Your task to perform on an android device: turn on improve location accuracy Image 0: 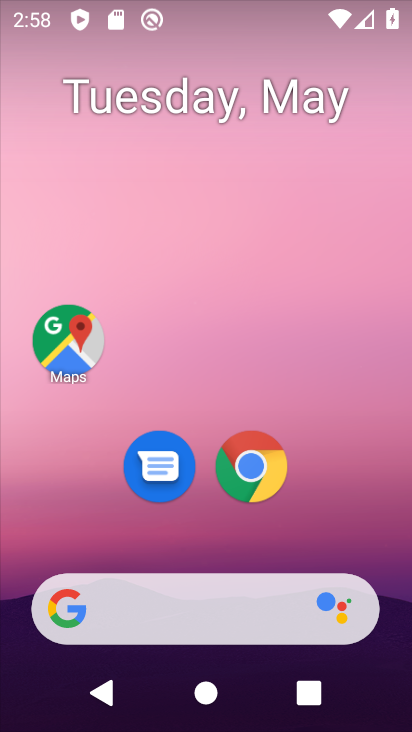
Step 0: drag from (301, 479) to (276, 167)
Your task to perform on an android device: turn on improve location accuracy Image 1: 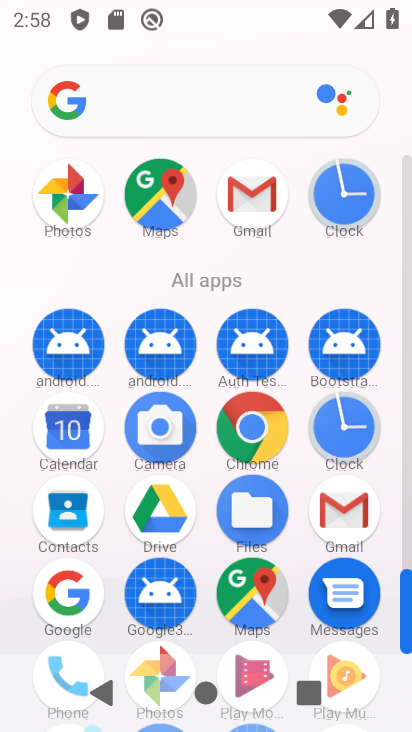
Step 1: drag from (202, 604) to (200, 319)
Your task to perform on an android device: turn on improve location accuracy Image 2: 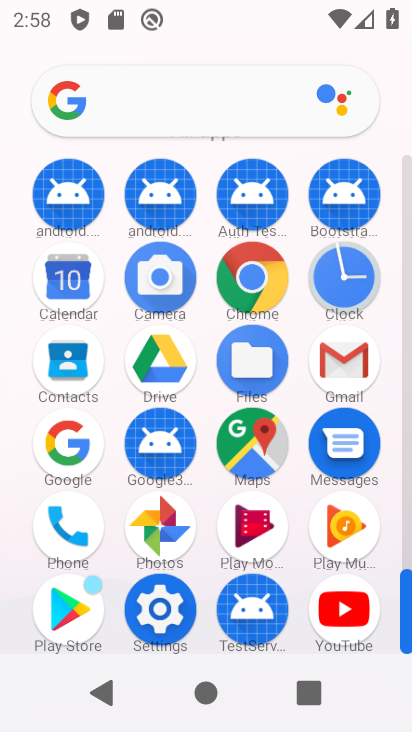
Step 2: click (157, 599)
Your task to perform on an android device: turn on improve location accuracy Image 3: 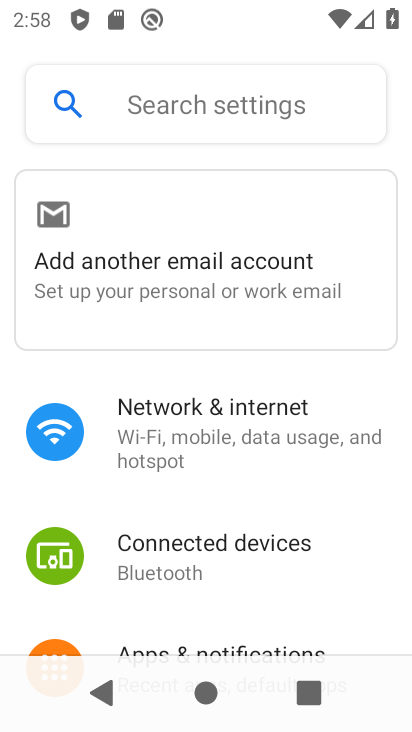
Step 3: drag from (201, 584) to (209, 301)
Your task to perform on an android device: turn on improve location accuracy Image 4: 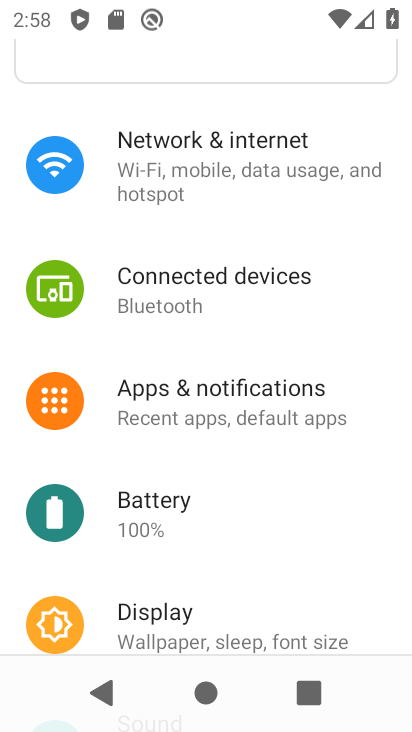
Step 4: drag from (195, 634) to (221, 291)
Your task to perform on an android device: turn on improve location accuracy Image 5: 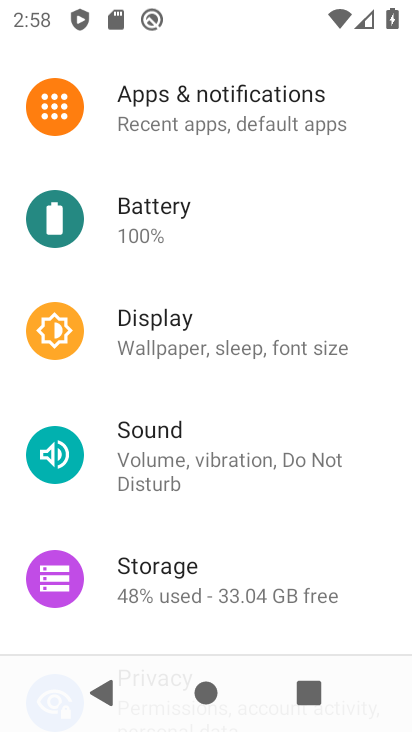
Step 5: drag from (176, 611) to (219, 231)
Your task to perform on an android device: turn on improve location accuracy Image 6: 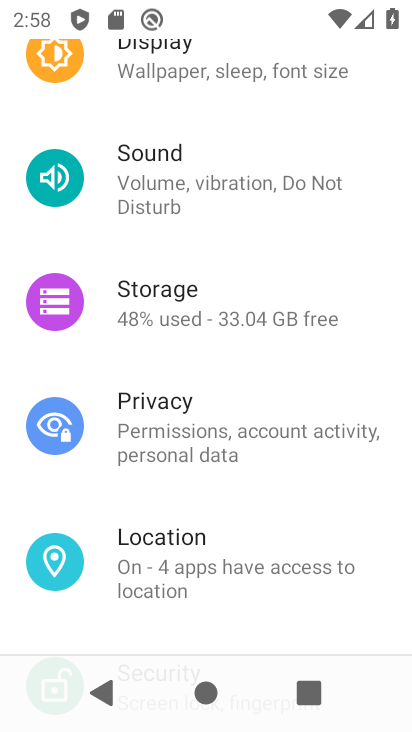
Step 6: click (164, 573)
Your task to perform on an android device: turn on improve location accuracy Image 7: 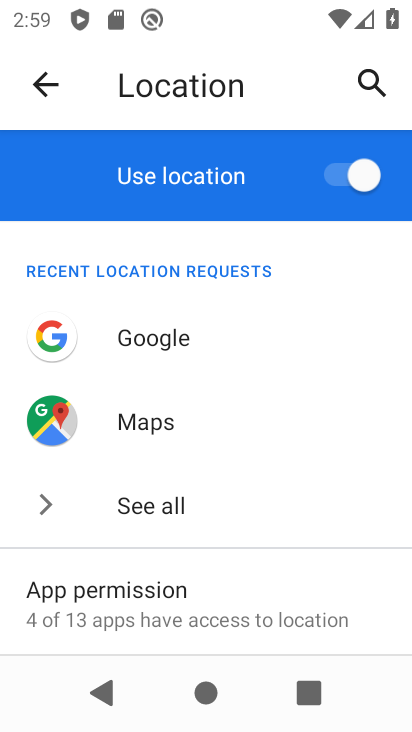
Step 7: drag from (187, 594) to (254, 212)
Your task to perform on an android device: turn on improve location accuracy Image 8: 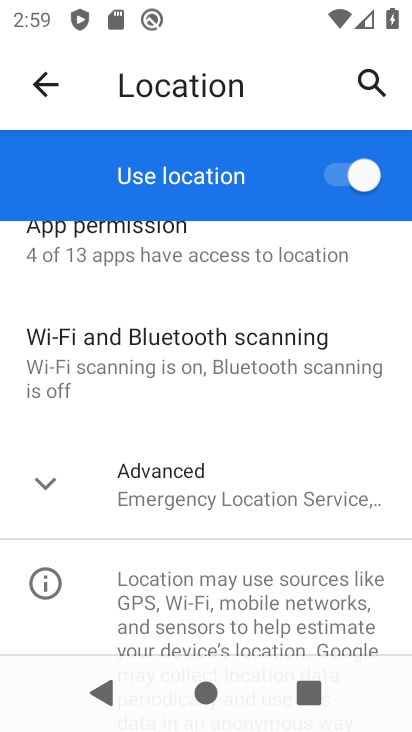
Step 8: click (177, 478)
Your task to perform on an android device: turn on improve location accuracy Image 9: 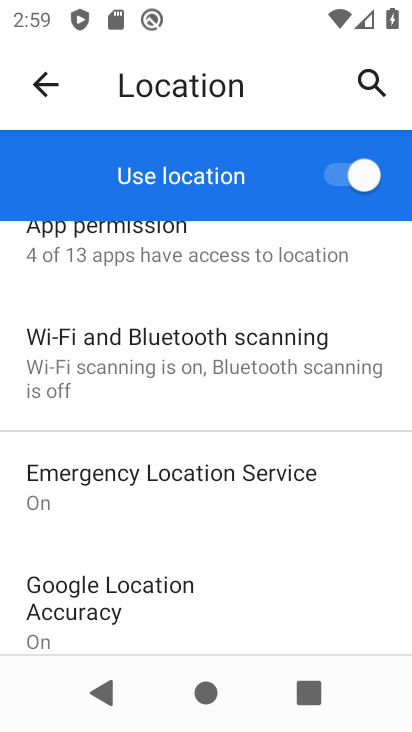
Step 9: click (127, 595)
Your task to perform on an android device: turn on improve location accuracy Image 10: 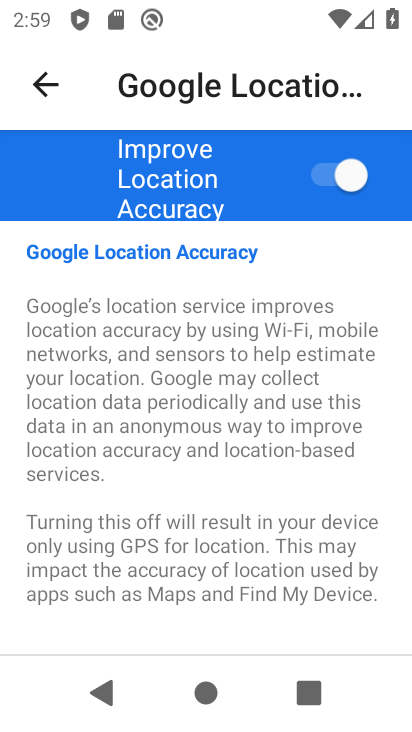
Step 10: task complete